Your task to perform on an android device: Go to settings Image 0: 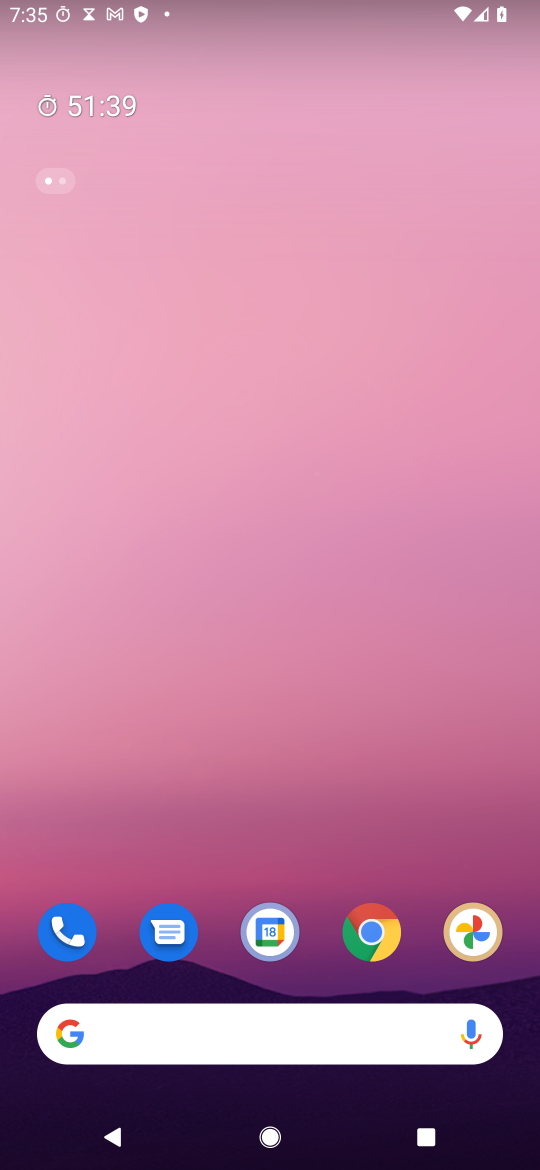
Step 0: drag from (331, 893) to (374, 8)
Your task to perform on an android device: Go to settings Image 1: 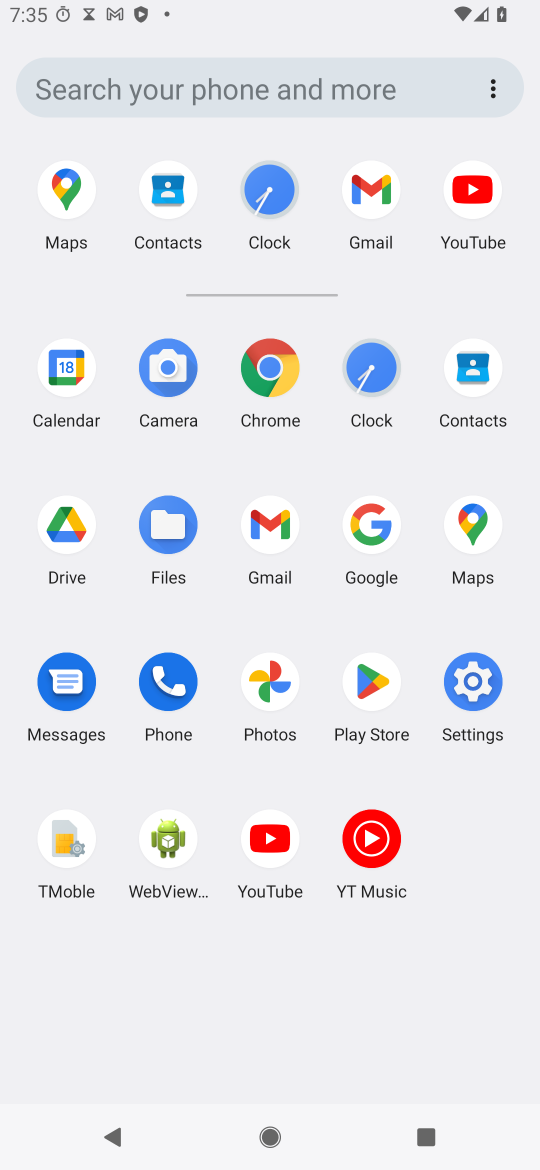
Step 1: click (473, 688)
Your task to perform on an android device: Go to settings Image 2: 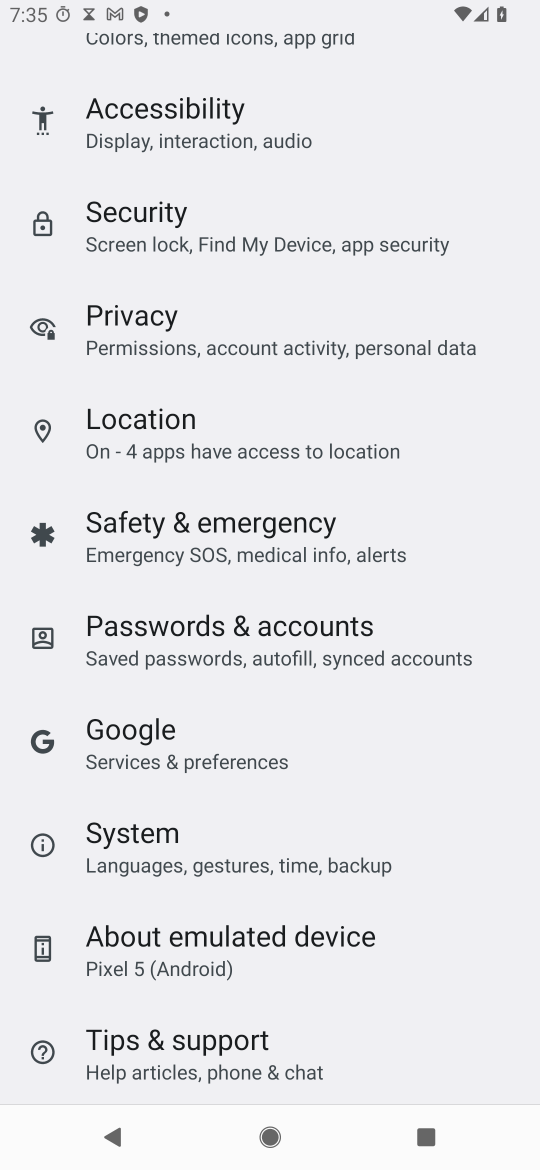
Step 2: task complete